Your task to perform on an android device: Set an alarm for 3pm Image 0: 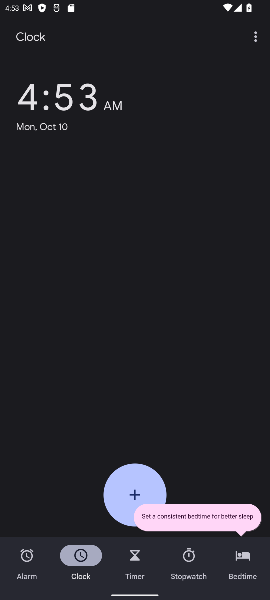
Step 0: click (135, 493)
Your task to perform on an android device: Set an alarm for 3pm Image 1: 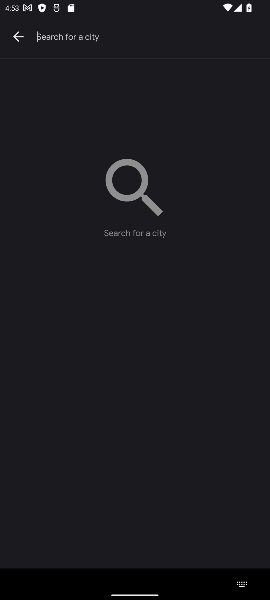
Step 1: click (16, 37)
Your task to perform on an android device: Set an alarm for 3pm Image 2: 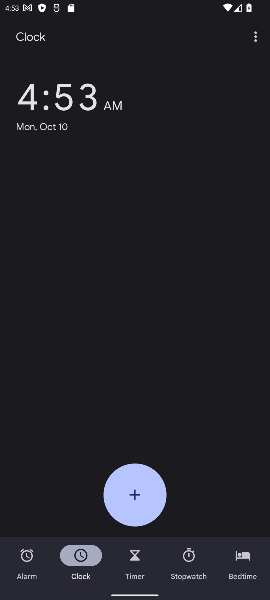
Step 2: click (21, 552)
Your task to perform on an android device: Set an alarm for 3pm Image 3: 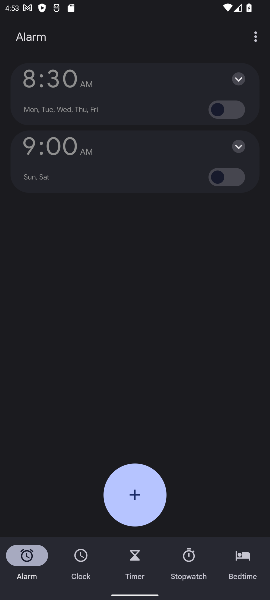
Step 3: click (124, 504)
Your task to perform on an android device: Set an alarm for 3pm Image 4: 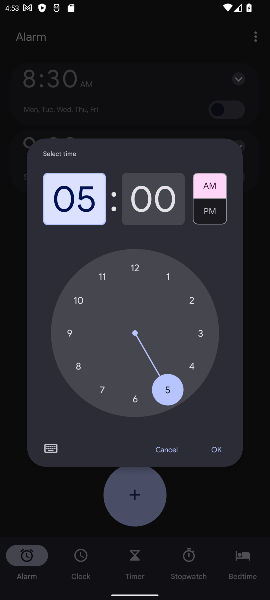
Step 4: click (201, 336)
Your task to perform on an android device: Set an alarm for 3pm Image 5: 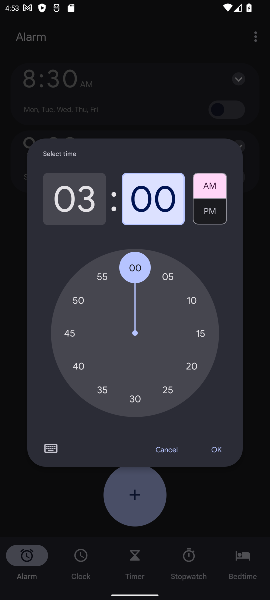
Step 5: click (211, 208)
Your task to perform on an android device: Set an alarm for 3pm Image 6: 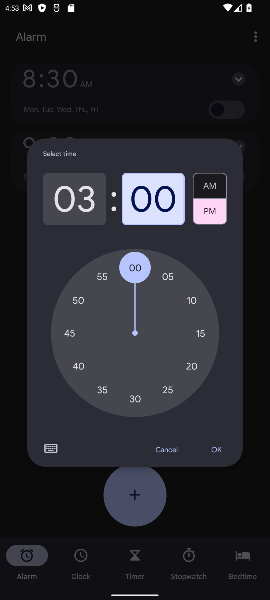
Step 6: click (222, 450)
Your task to perform on an android device: Set an alarm for 3pm Image 7: 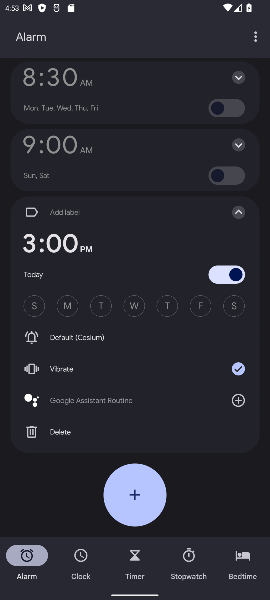
Step 7: task complete